Your task to perform on an android device: What's on my calendar today? Image 0: 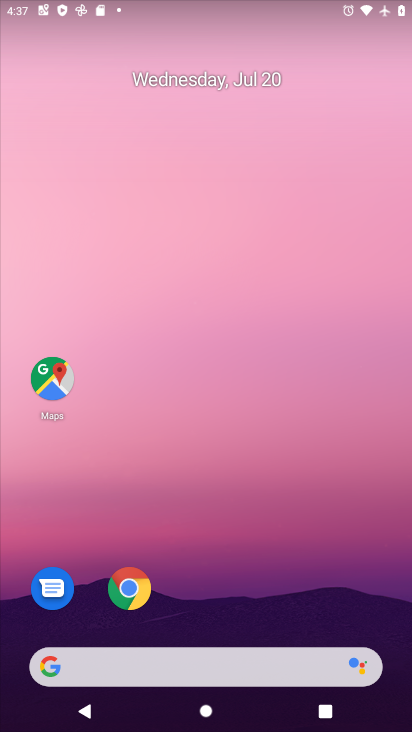
Step 0: drag from (275, 543) to (290, 46)
Your task to perform on an android device: What's on my calendar today? Image 1: 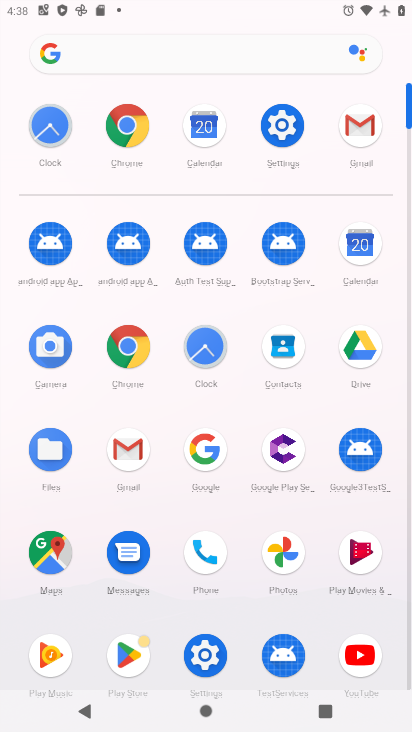
Step 1: click (360, 248)
Your task to perform on an android device: What's on my calendar today? Image 2: 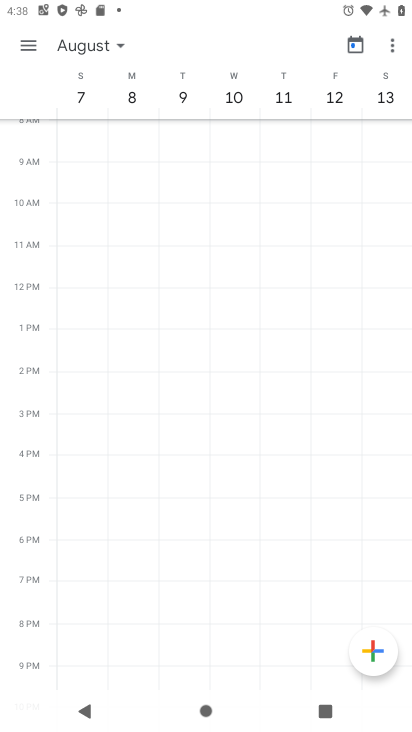
Step 2: click (83, 50)
Your task to perform on an android device: What's on my calendar today? Image 3: 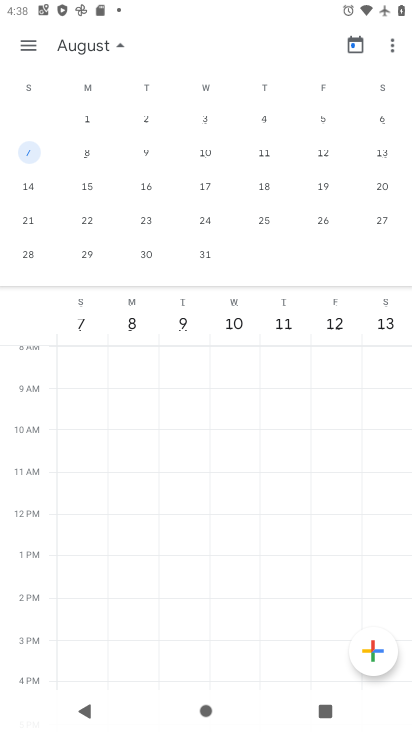
Step 3: drag from (63, 159) to (403, 174)
Your task to perform on an android device: What's on my calendar today? Image 4: 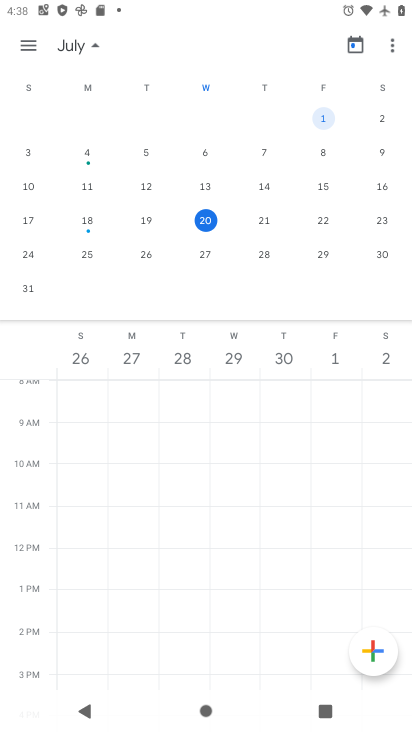
Step 4: click (202, 216)
Your task to perform on an android device: What's on my calendar today? Image 5: 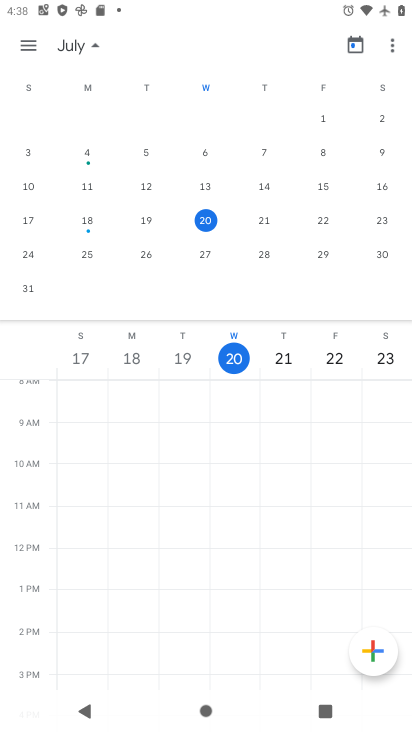
Step 5: click (220, 352)
Your task to perform on an android device: What's on my calendar today? Image 6: 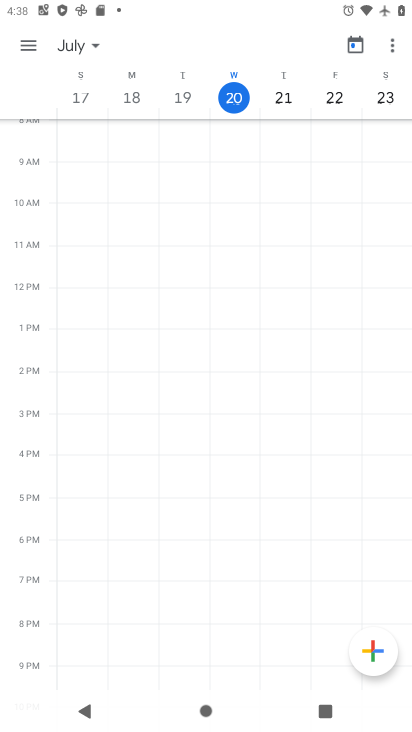
Step 6: task complete